Your task to perform on an android device: set default search engine in the chrome app Image 0: 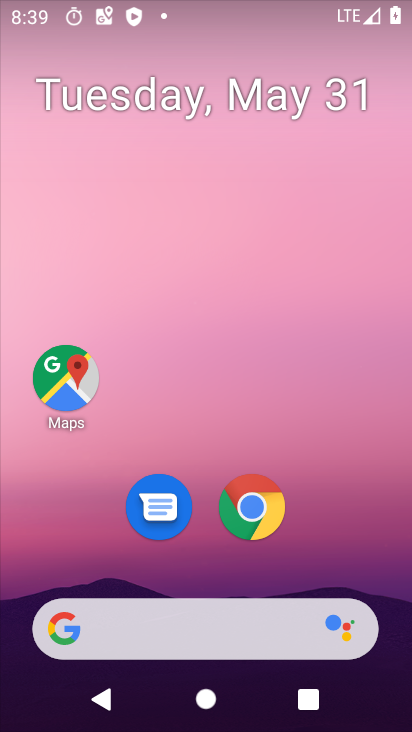
Step 0: press home button
Your task to perform on an android device: set default search engine in the chrome app Image 1: 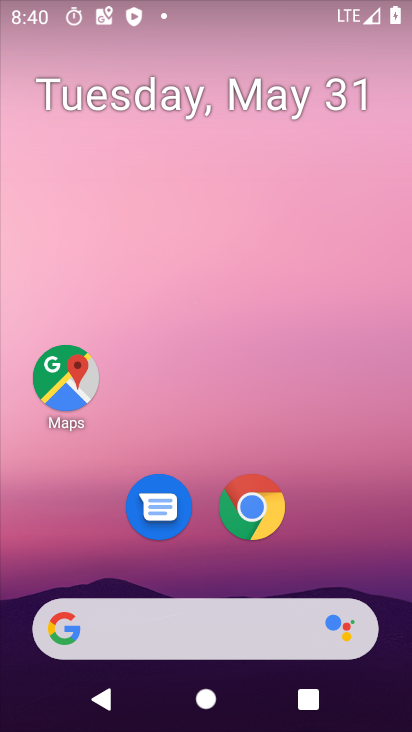
Step 1: drag from (27, 555) to (174, 213)
Your task to perform on an android device: set default search engine in the chrome app Image 2: 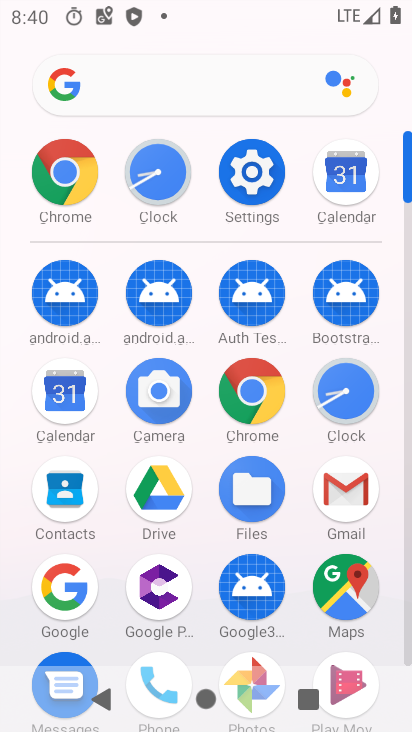
Step 2: click (250, 386)
Your task to perform on an android device: set default search engine in the chrome app Image 3: 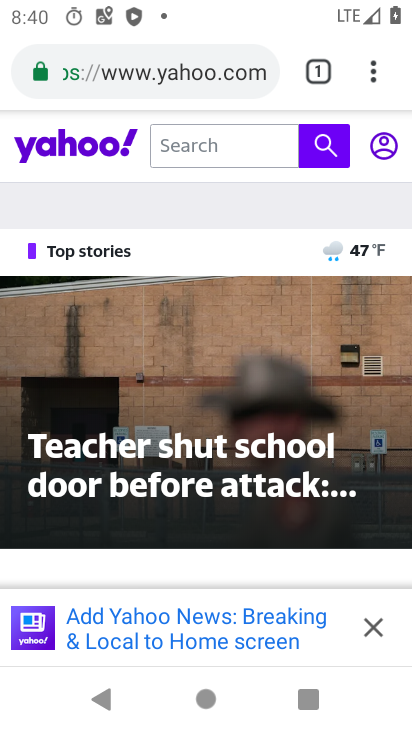
Step 3: click (377, 76)
Your task to perform on an android device: set default search engine in the chrome app Image 4: 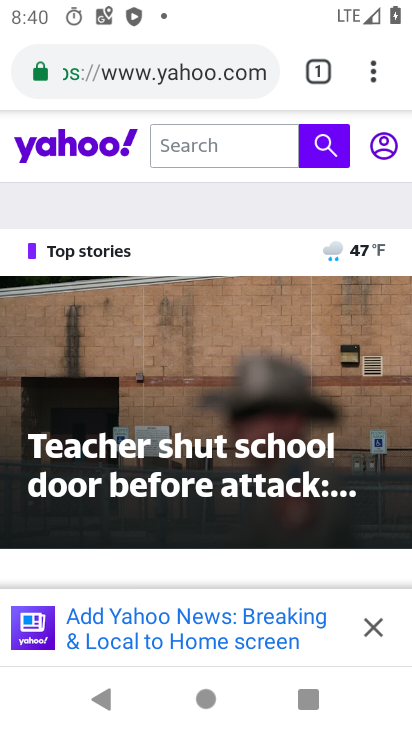
Step 4: click (387, 69)
Your task to perform on an android device: set default search engine in the chrome app Image 5: 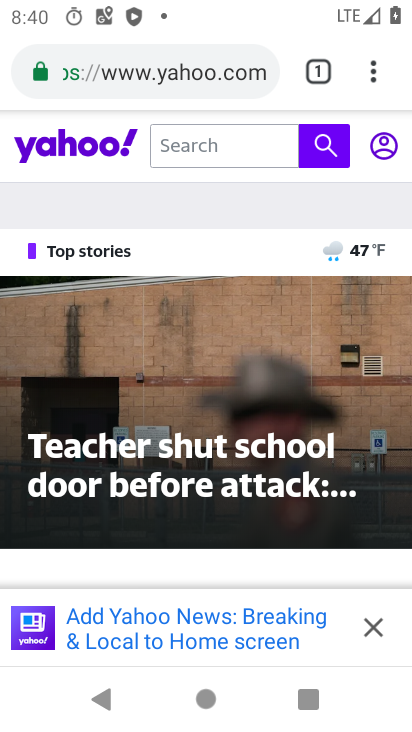
Step 5: click (369, 78)
Your task to perform on an android device: set default search engine in the chrome app Image 6: 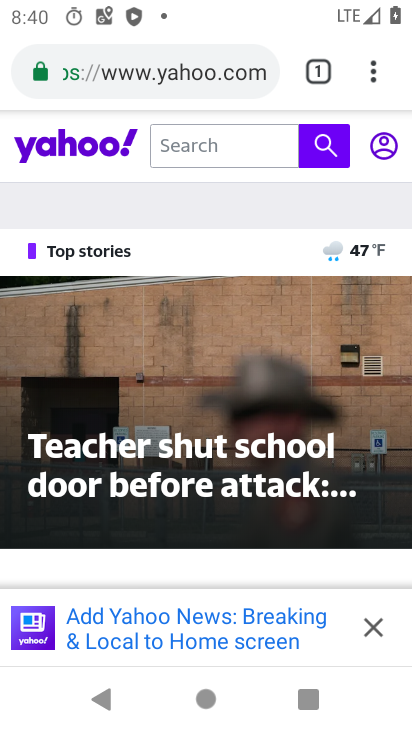
Step 6: click (380, 63)
Your task to perform on an android device: set default search engine in the chrome app Image 7: 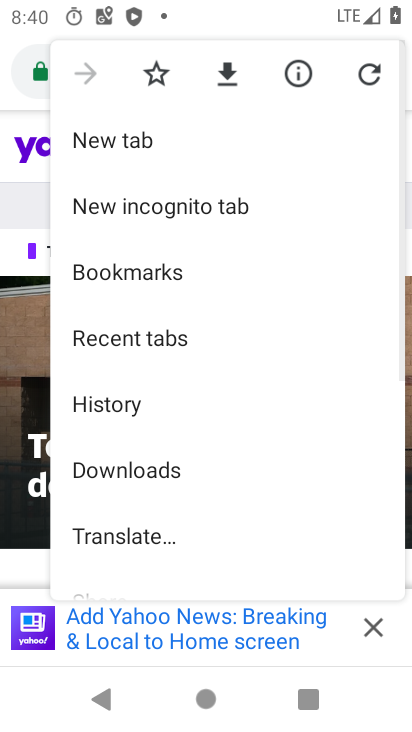
Step 7: drag from (96, 541) to (249, 93)
Your task to perform on an android device: set default search engine in the chrome app Image 8: 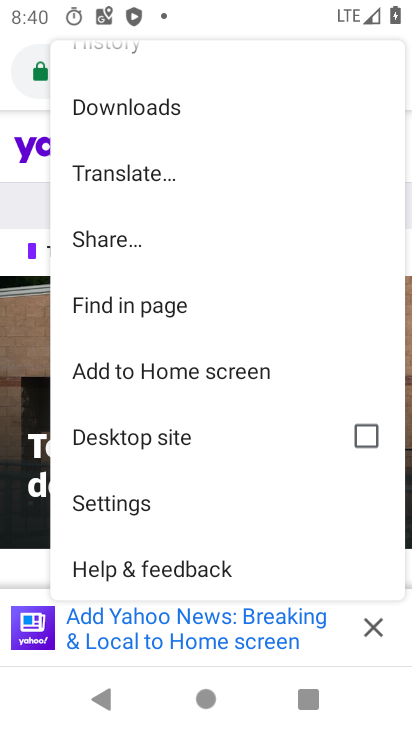
Step 8: click (109, 501)
Your task to perform on an android device: set default search engine in the chrome app Image 9: 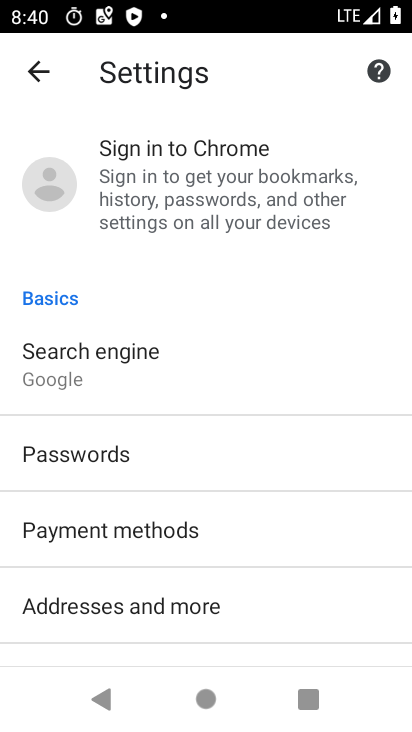
Step 9: click (110, 387)
Your task to perform on an android device: set default search engine in the chrome app Image 10: 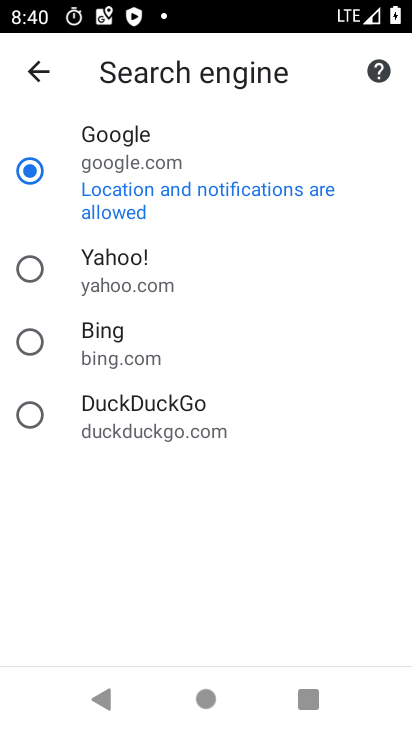
Step 10: task complete